Your task to perform on an android device: change alarm snooze length Image 0: 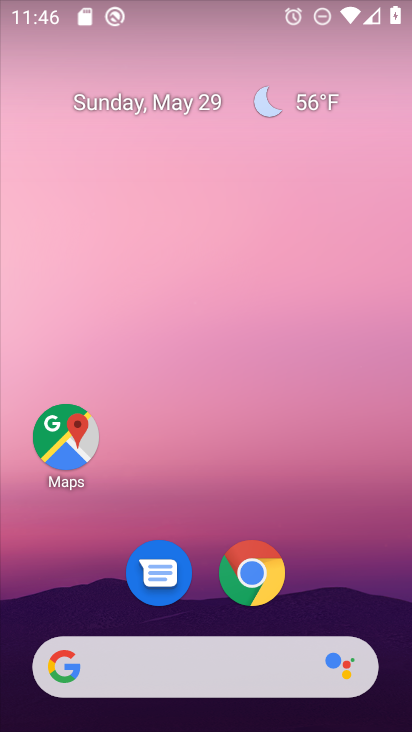
Step 0: drag from (208, 652) to (194, 134)
Your task to perform on an android device: change alarm snooze length Image 1: 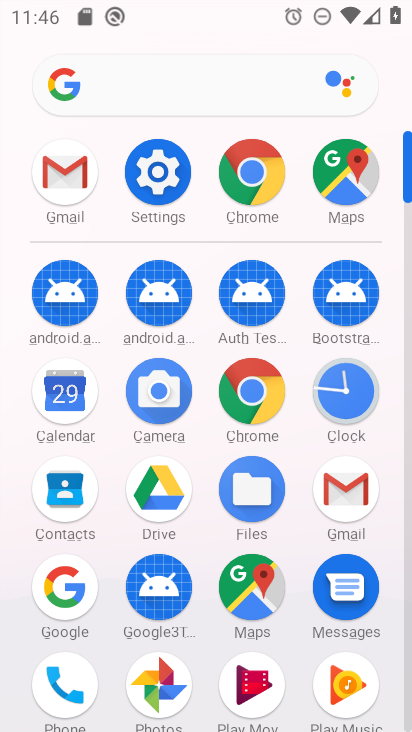
Step 1: click (361, 380)
Your task to perform on an android device: change alarm snooze length Image 2: 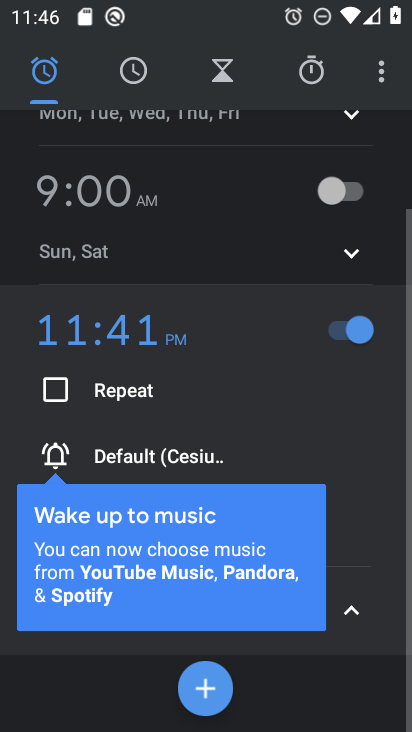
Step 2: click (373, 78)
Your task to perform on an android device: change alarm snooze length Image 3: 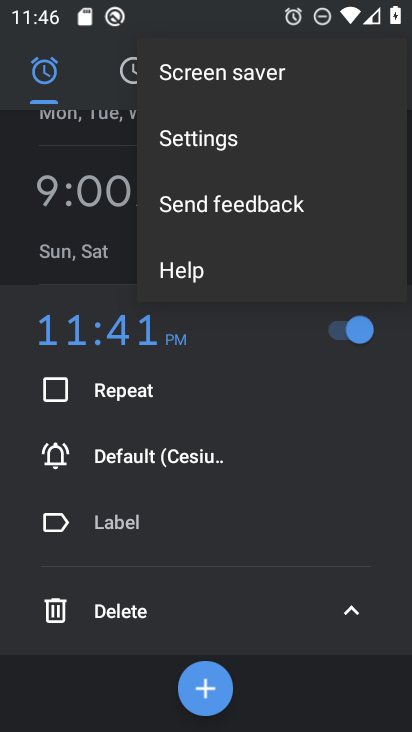
Step 3: click (250, 137)
Your task to perform on an android device: change alarm snooze length Image 4: 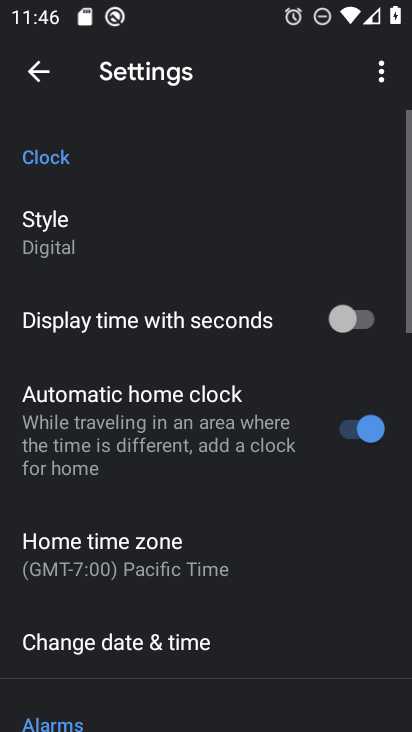
Step 4: drag from (164, 613) to (144, 10)
Your task to perform on an android device: change alarm snooze length Image 5: 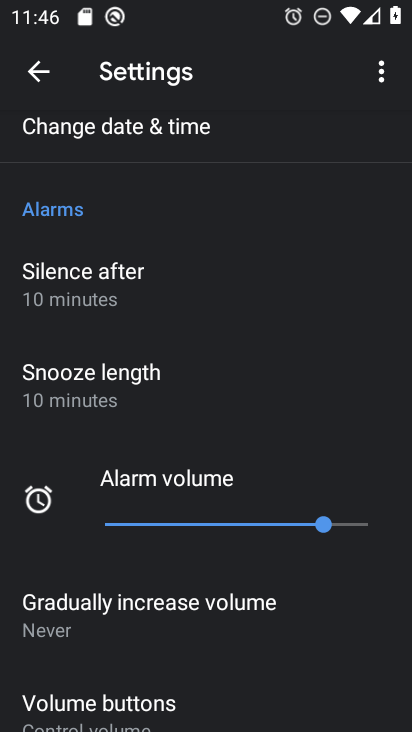
Step 5: drag from (156, 570) to (153, 295)
Your task to perform on an android device: change alarm snooze length Image 6: 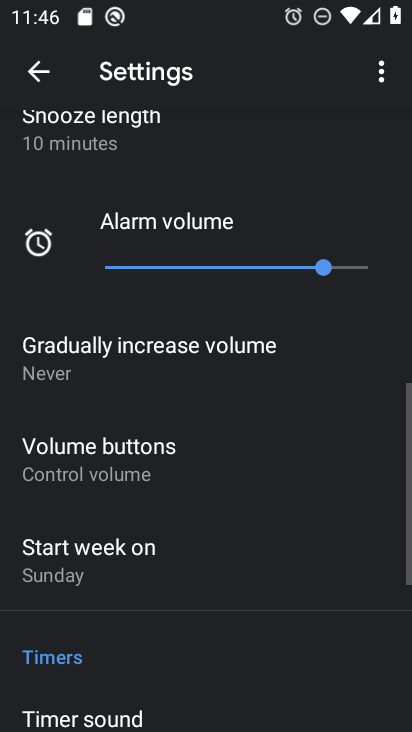
Step 6: click (138, 120)
Your task to perform on an android device: change alarm snooze length Image 7: 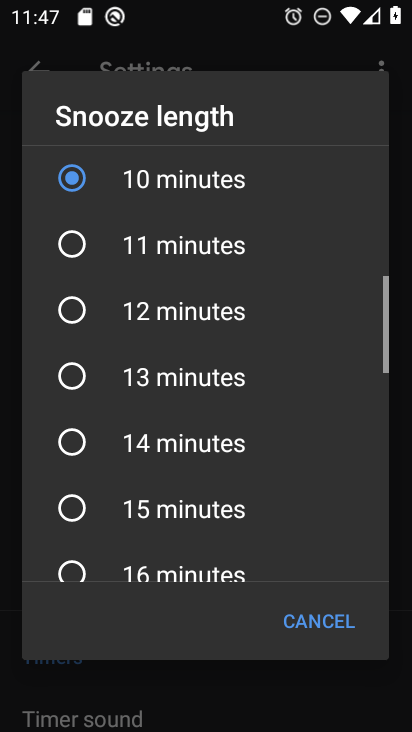
Step 7: click (80, 252)
Your task to perform on an android device: change alarm snooze length Image 8: 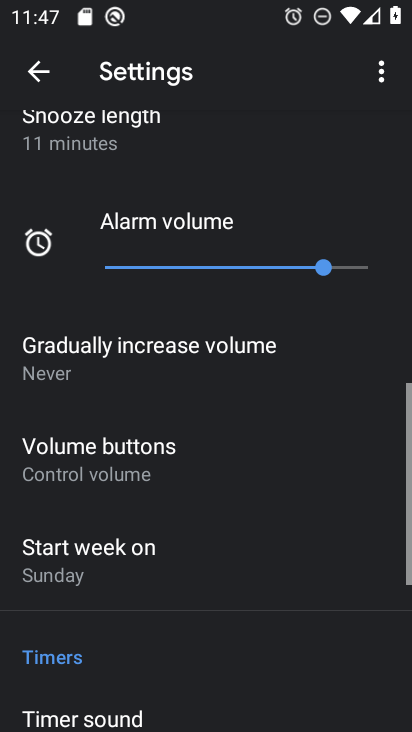
Step 8: task complete